Your task to perform on an android device: toggle javascript in the chrome app Image 0: 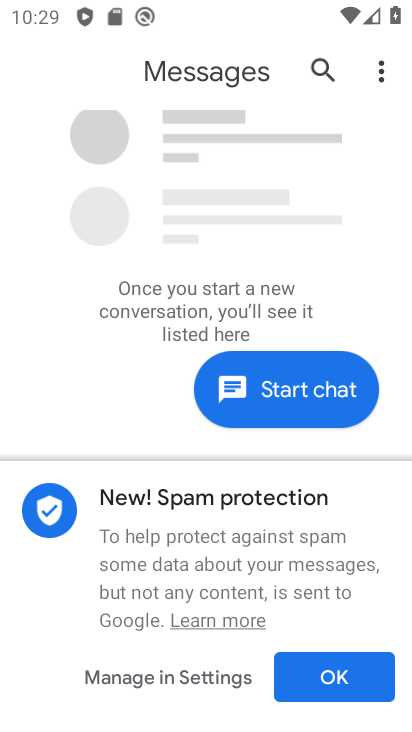
Step 0: press home button
Your task to perform on an android device: toggle javascript in the chrome app Image 1: 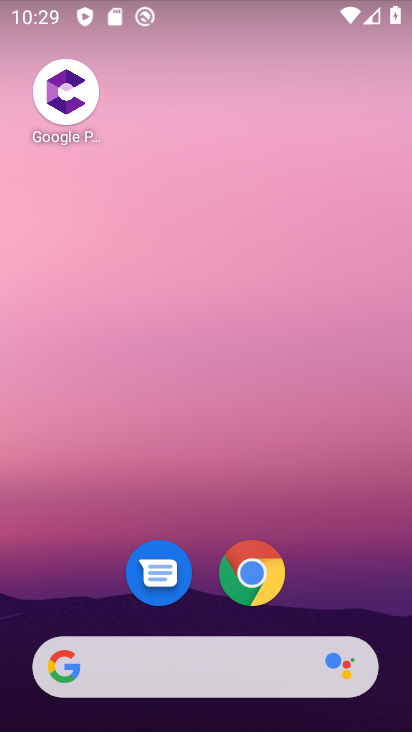
Step 1: drag from (316, 594) to (351, 114)
Your task to perform on an android device: toggle javascript in the chrome app Image 2: 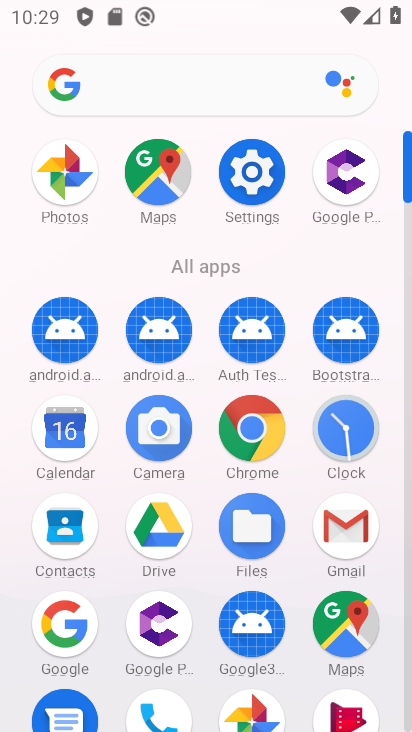
Step 2: click (240, 430)
Your task to perform on an android device: toggle javascript in the chrome app Image 3: 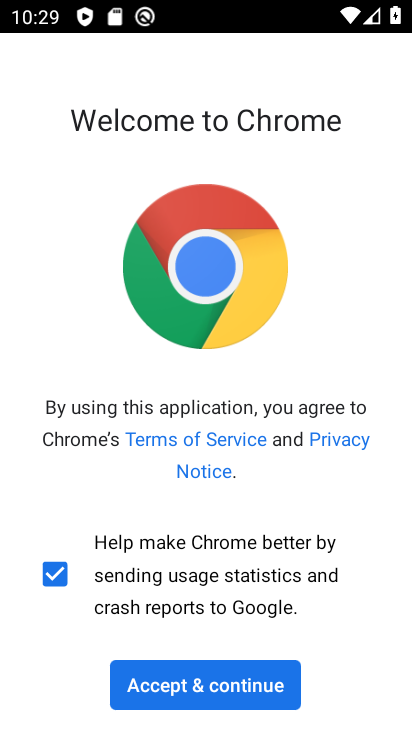
Step 3: click (284, 672)
Your task to perform on an android device: toggle javascript in the chrome app Image 4: 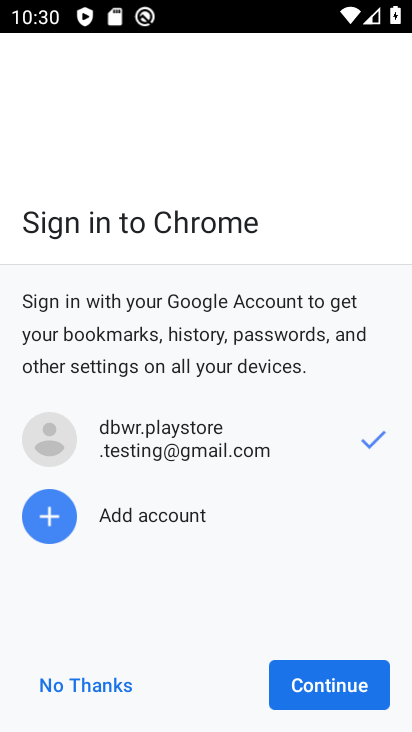
Step 4: click (87, 674)
Your task to perform on an android device: toggle javascript in the chrome app Image 5: 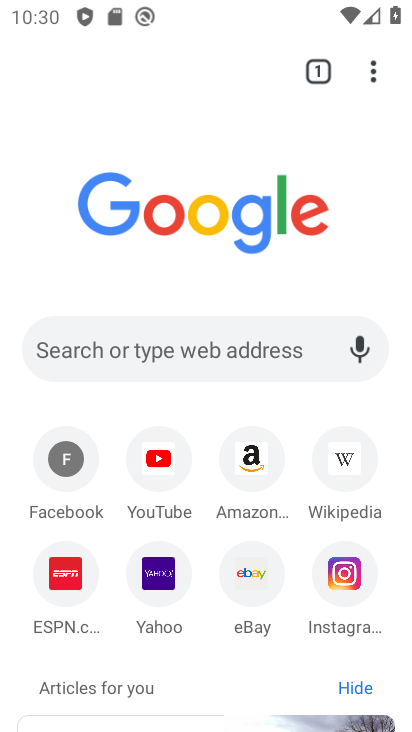
Step 5: click (383, 74)
Your task to perform on an android device: toggle javascript in the chrome app Image 6: 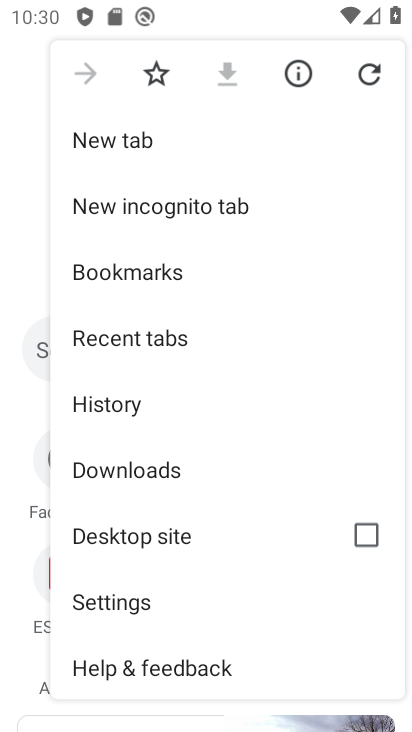
Step 6: click (191, 620)
Your task to perform on an android device: toggle javascript in the chrome app Image 7: 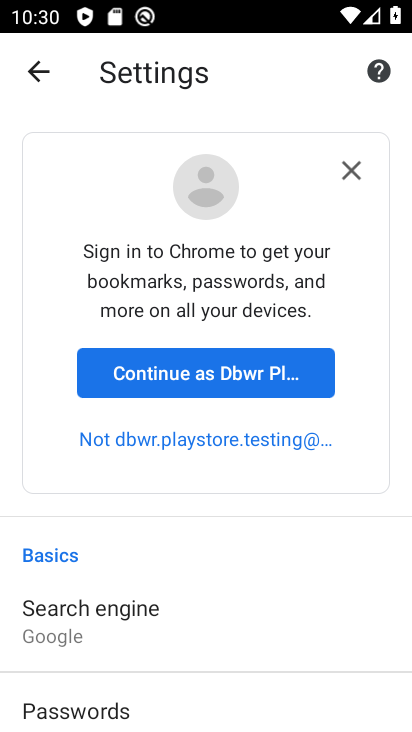
Step 7: drag from (194, 617) to (190, 266)
Your task to perform on an android device: toggle javascript in the chrome app Image 8: 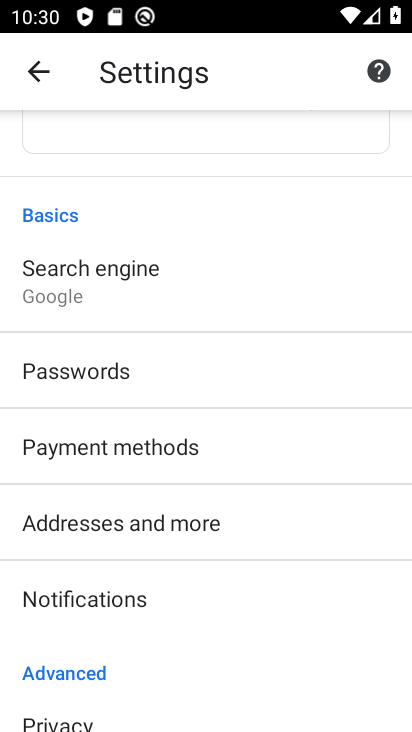
Step 8: drag from (172, 578) to (198, 340)
Your task to perform on an android device: toggle javascript in the chrome app Image 9: 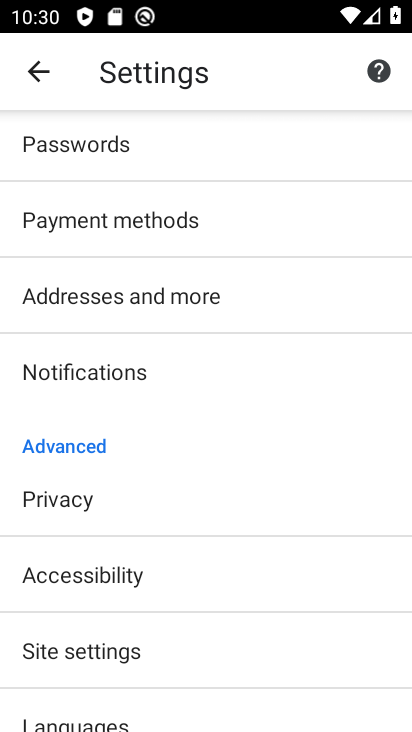
Step 9: click (169, 643)
Your task to perform on an android device: toggle javascript in the chrome app Image 10: 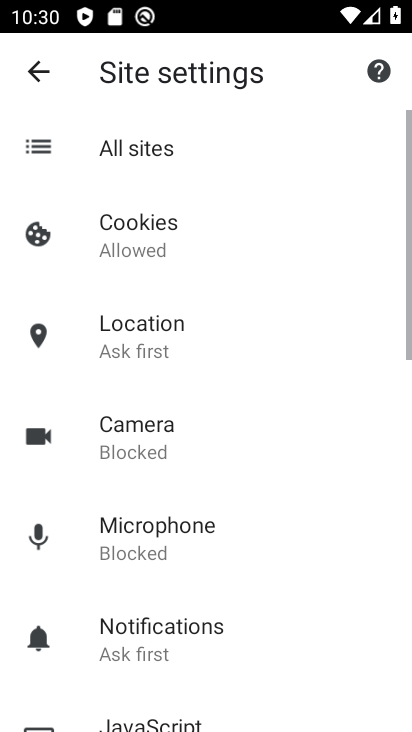
Step 10: drag from (169, 643) to (199, 295)
Your task to perform on an android device: toggle javascript in the chrome app Image 11: 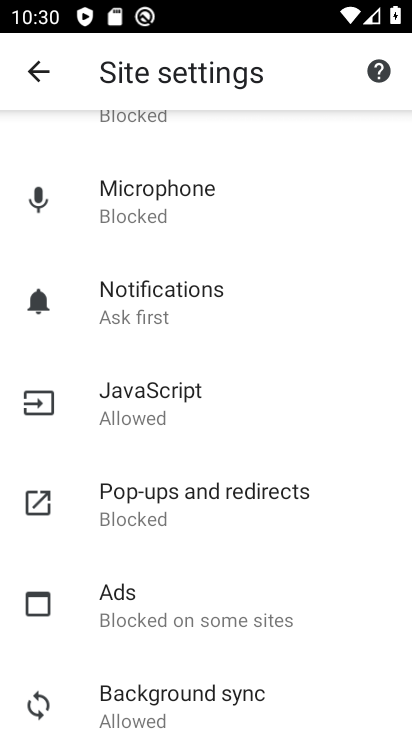
Step 11: click (211, 409)
Your task to perform on an android device: toggle javascript in the chrome app Image 12: 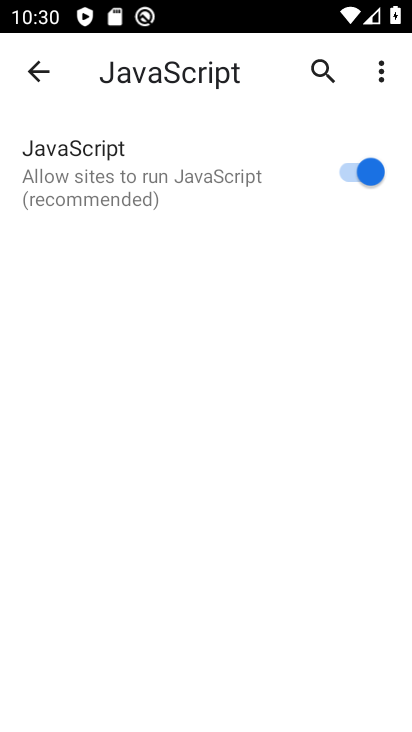
Step 12: click (360, 166)
Your task to perform on an android device: toggle javascript in the chrome app Image 13: 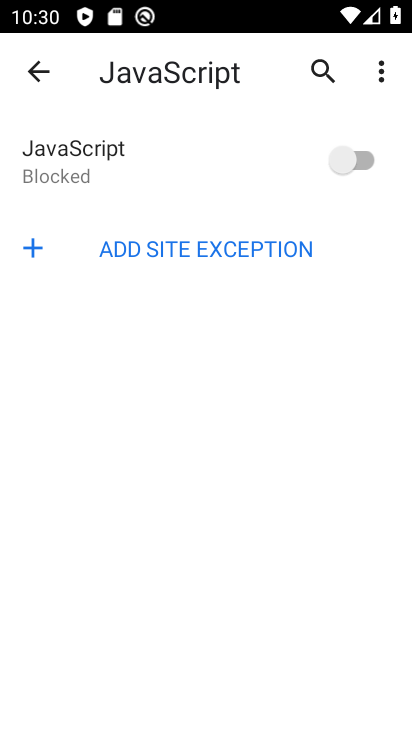
Step 13: task complete